Your task to perform on an android device: delete location history Image 0: 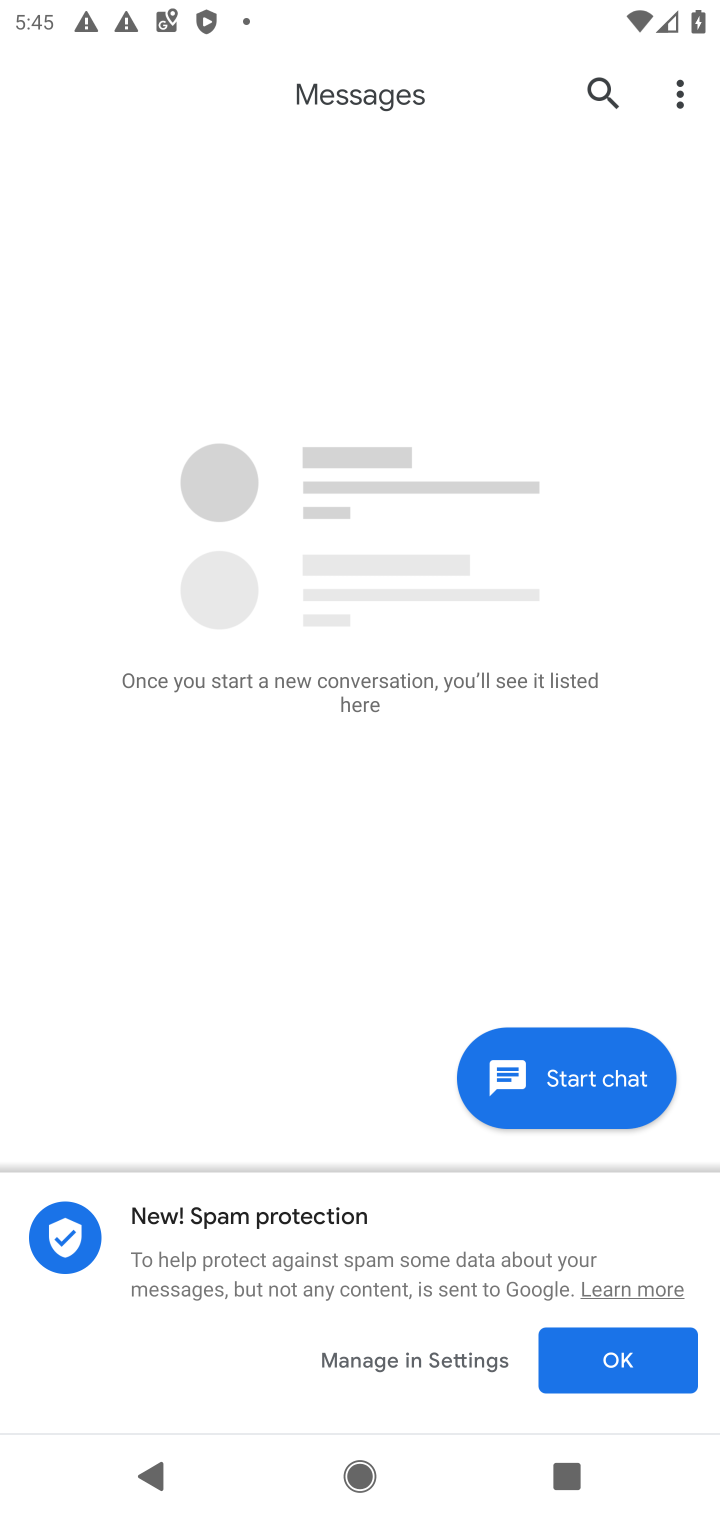
Step 0: press home button
Your task to perform on an android device: delete location history Image 1: 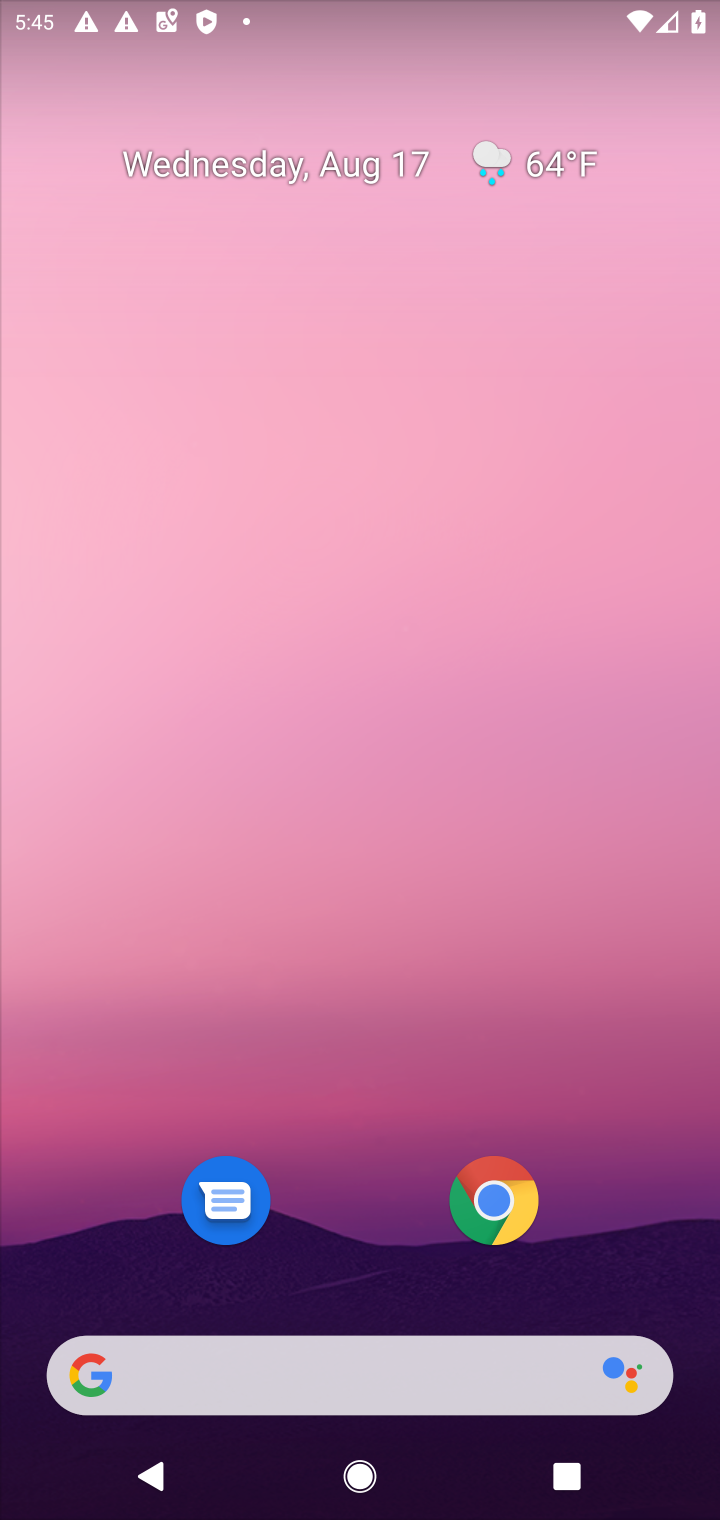
Step 1: drag from (381, 1281) to (354, 1)
Your task to perform on an android device: delete location history Image 2: 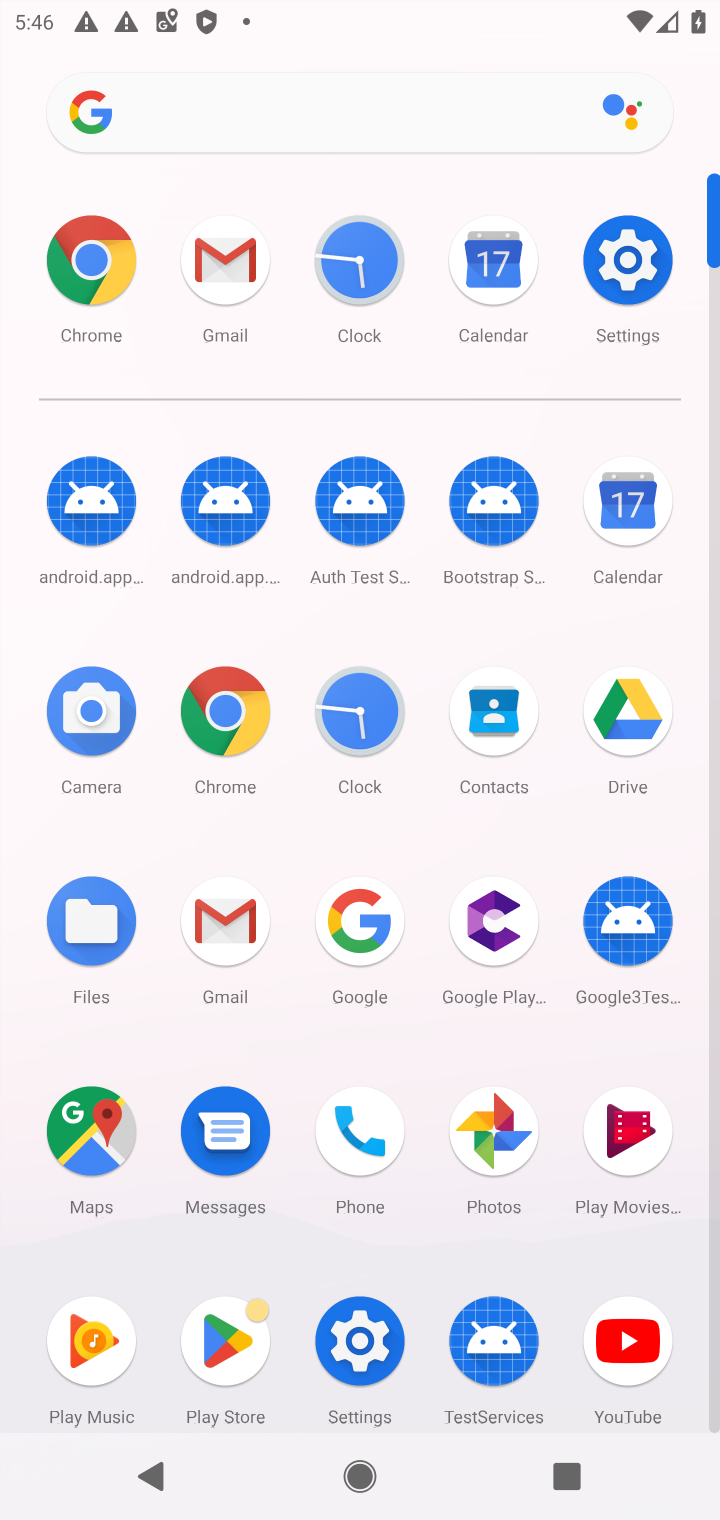
Step 2: click (87, 1129)
Your task to perform on an android device: delete location history Image 3: 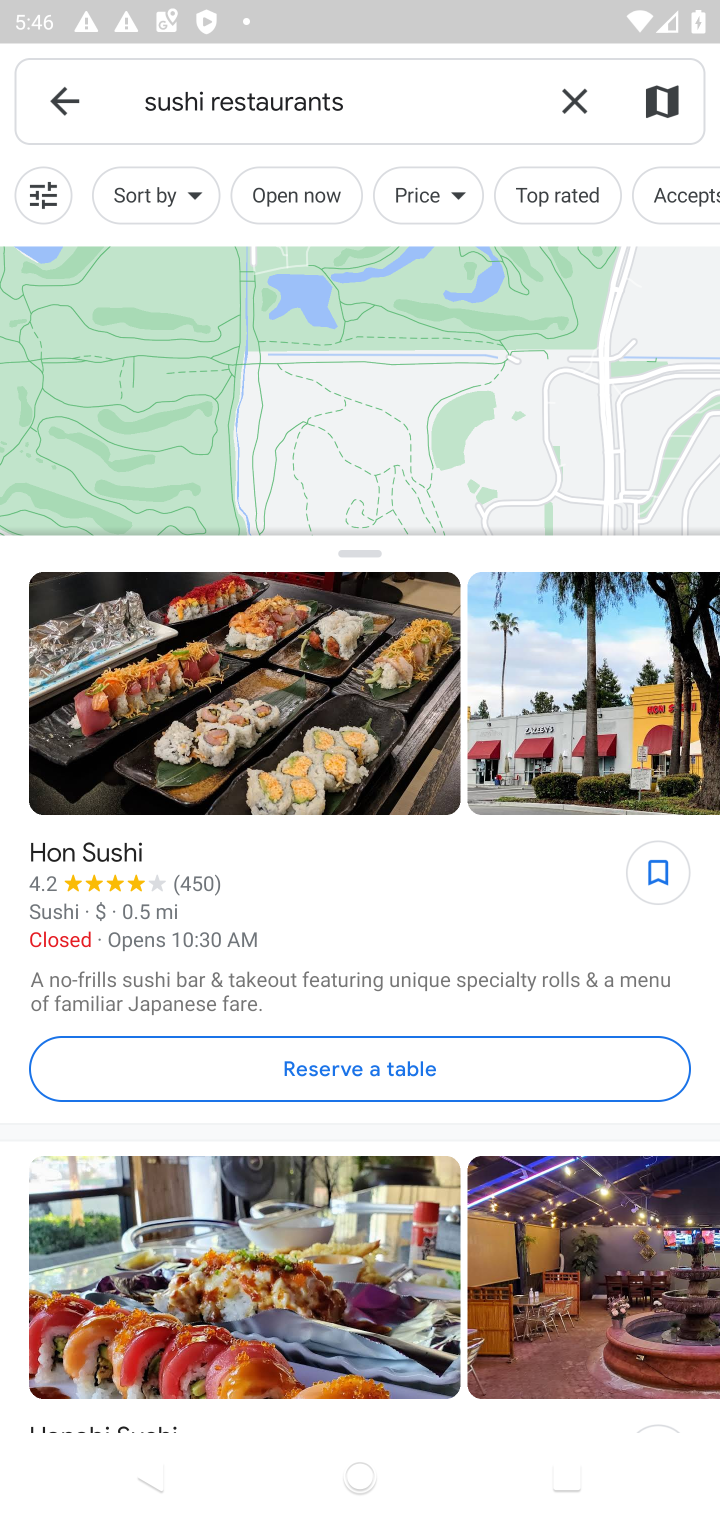
Step 3: click (64, 93)
Your task to perform on an android device: delete location history Image 4: 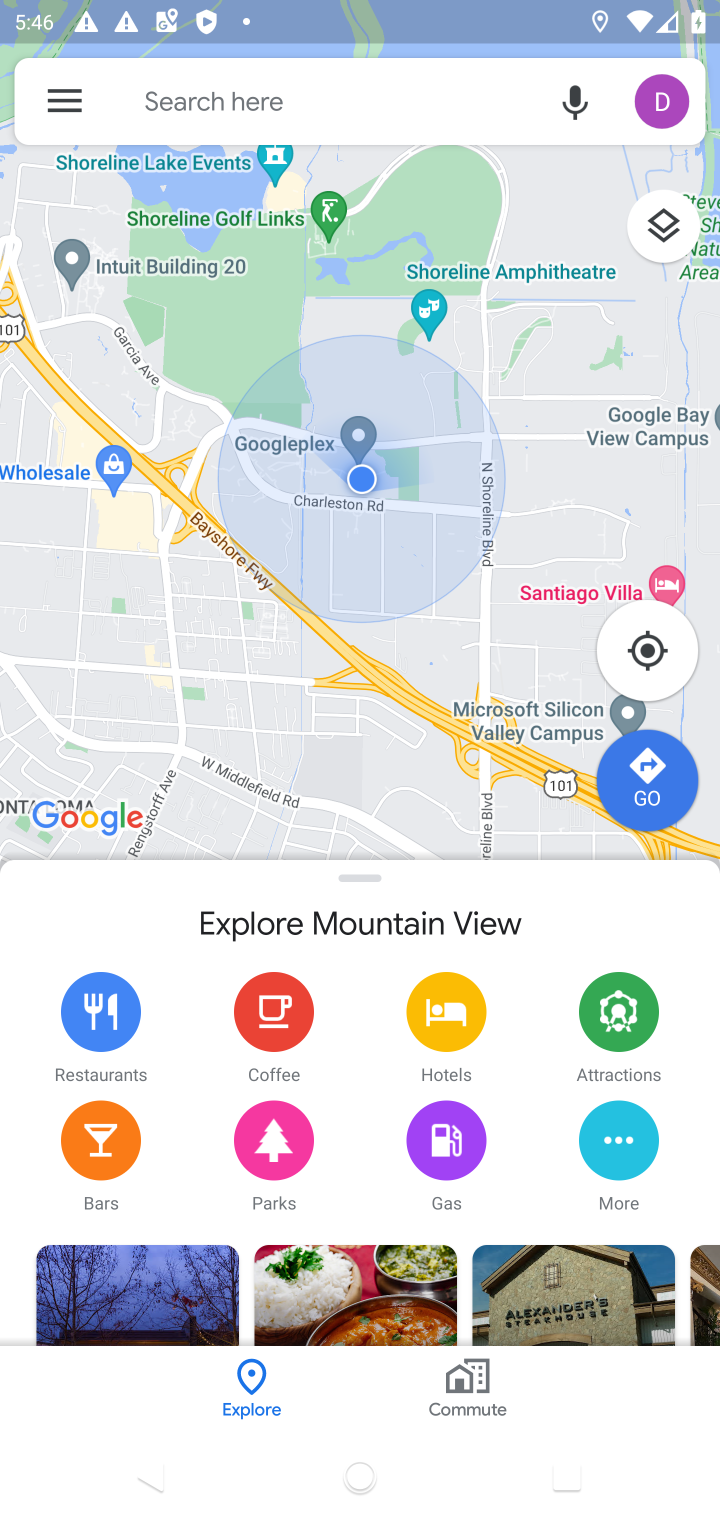
Step 4: click (57, 93)
Your task to perform on an android device: delete location history Image 5: 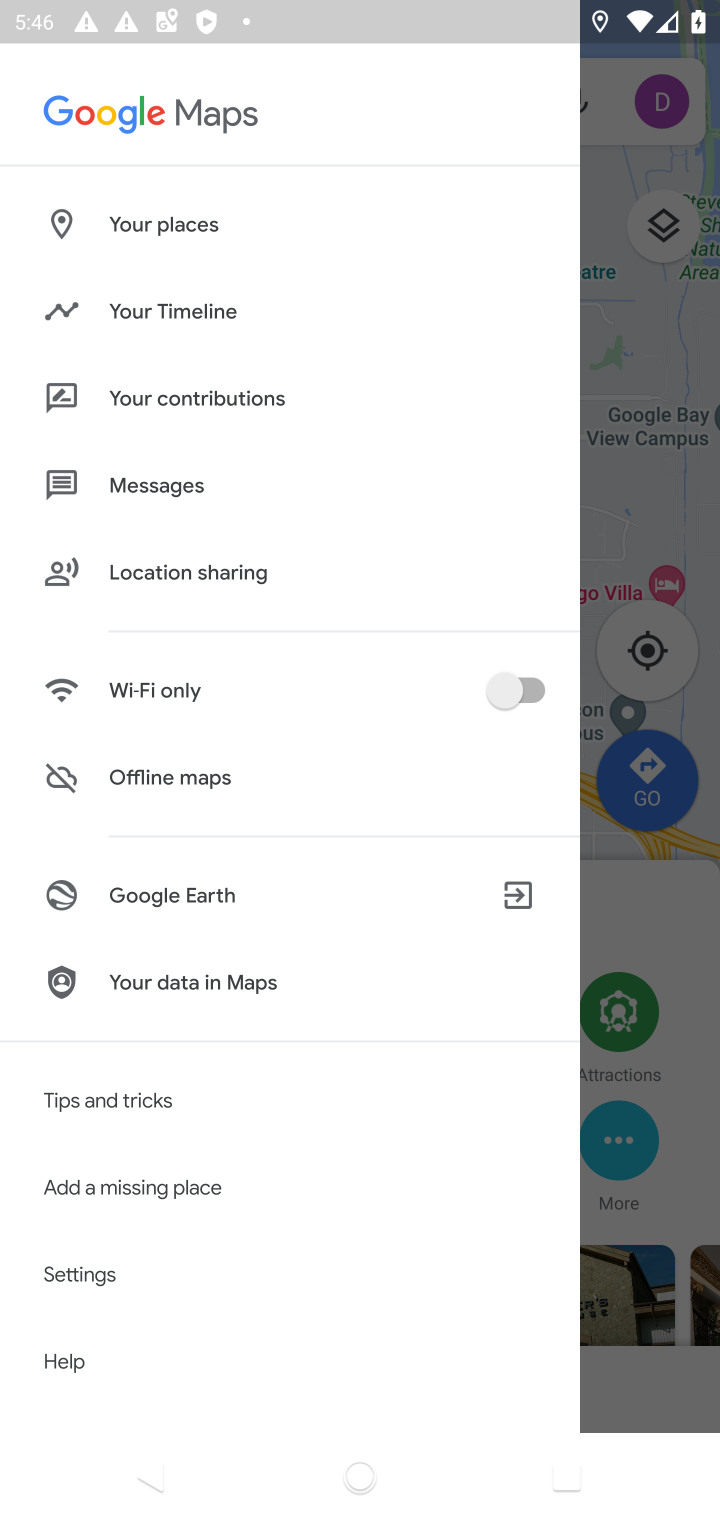
Step 5: drag from (129, 1210) to (137, 526)
Your task to perform on an android device: delete location history Image 6: 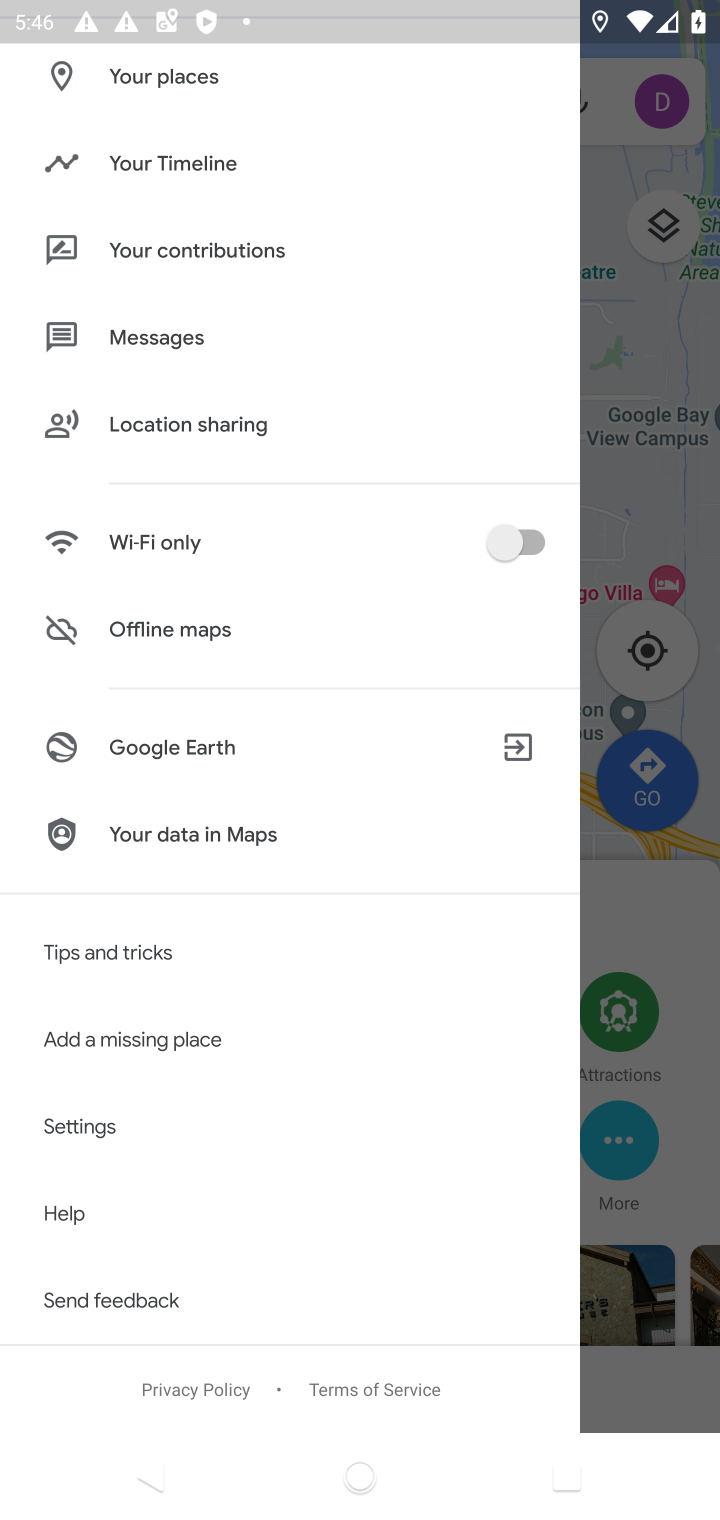
Step 6: drag from (263, 124) to (227, 1022)
Your task to perform on an android device: delete location history Image 7: 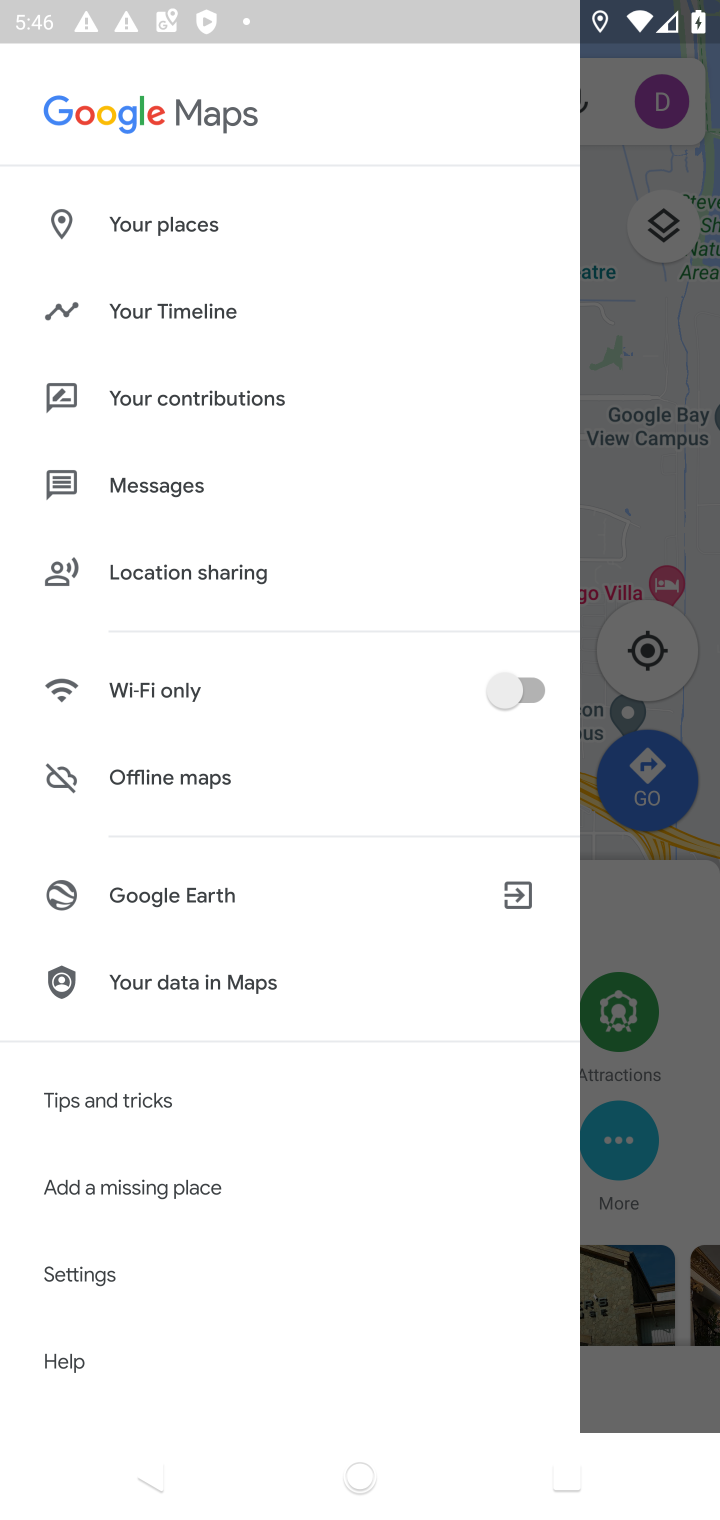
Step 7: click (172, 314)
Your task to perform on an android device: delete location history Image 8: 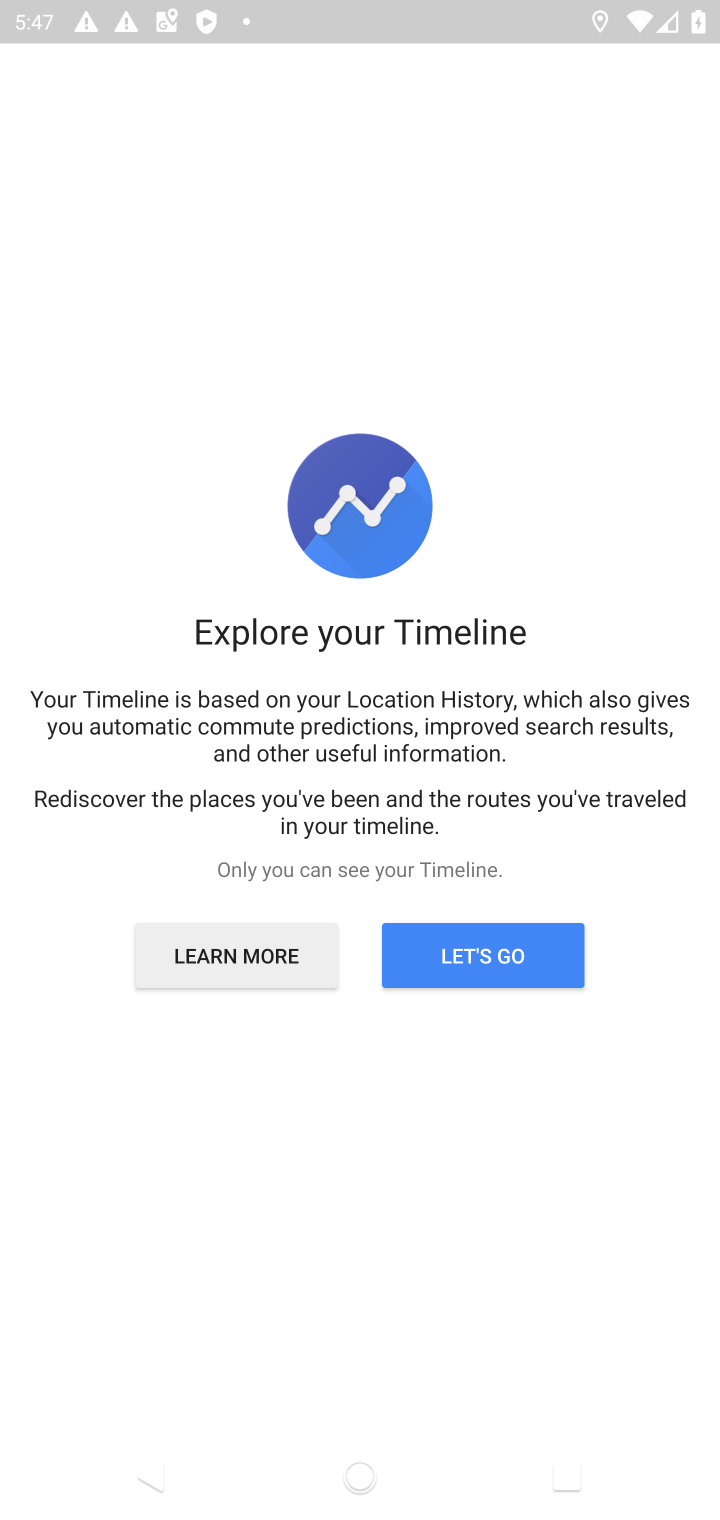
Step 8: click (446, 964)
Your task to perform on an android device: delete location history Image 9: 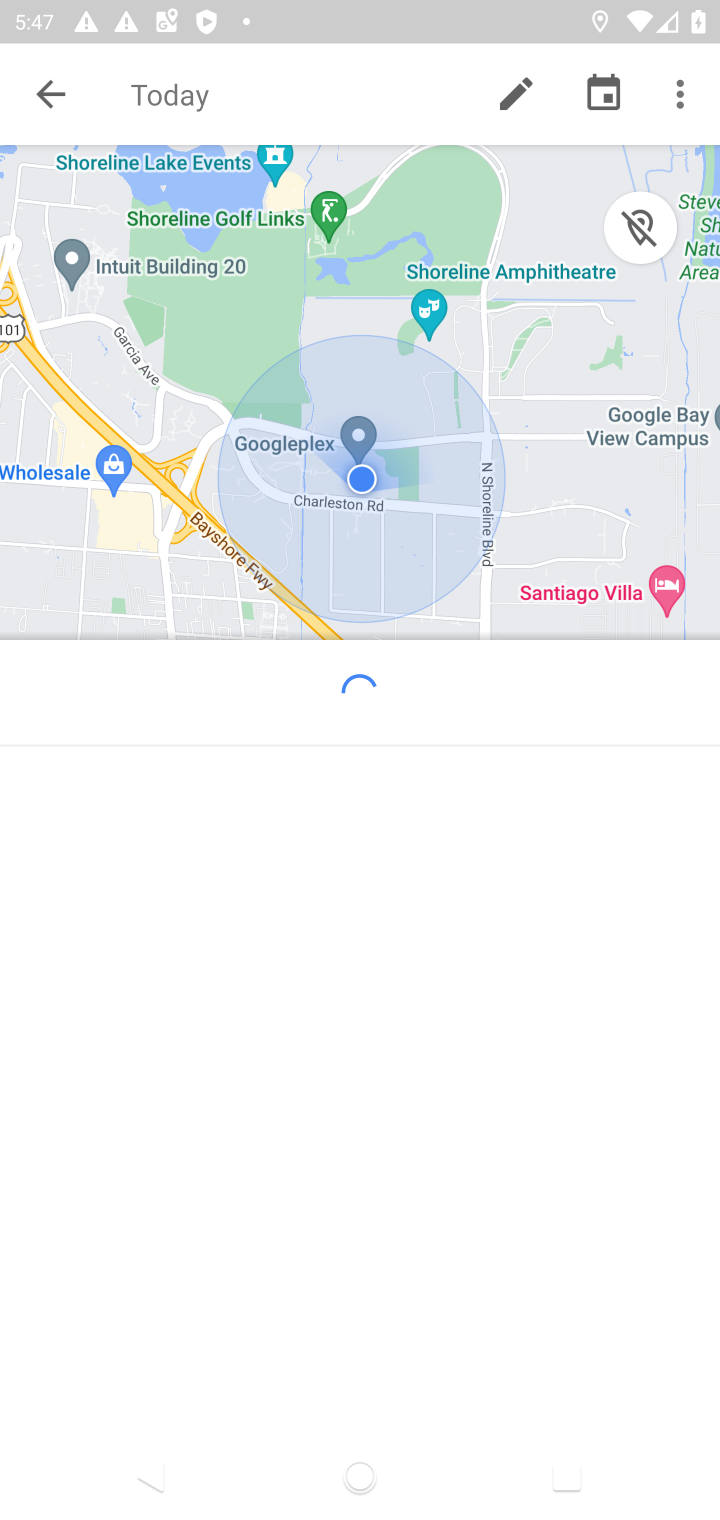
Step 9: click (685, 88)
Your task to perform on an android device: delete location history Image 10: 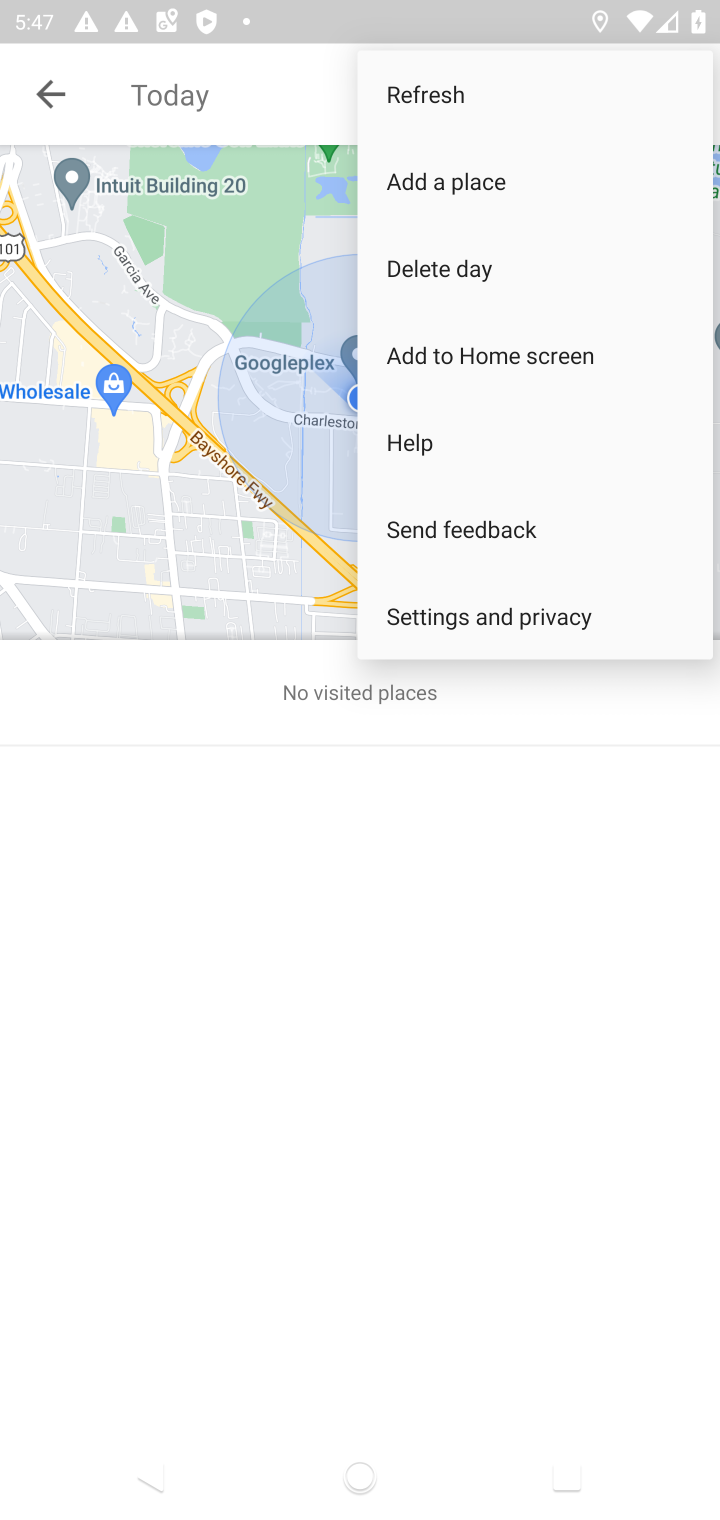
Step 10: click (438, 617)
Your task to perform on an android device: delete location history Image 11: 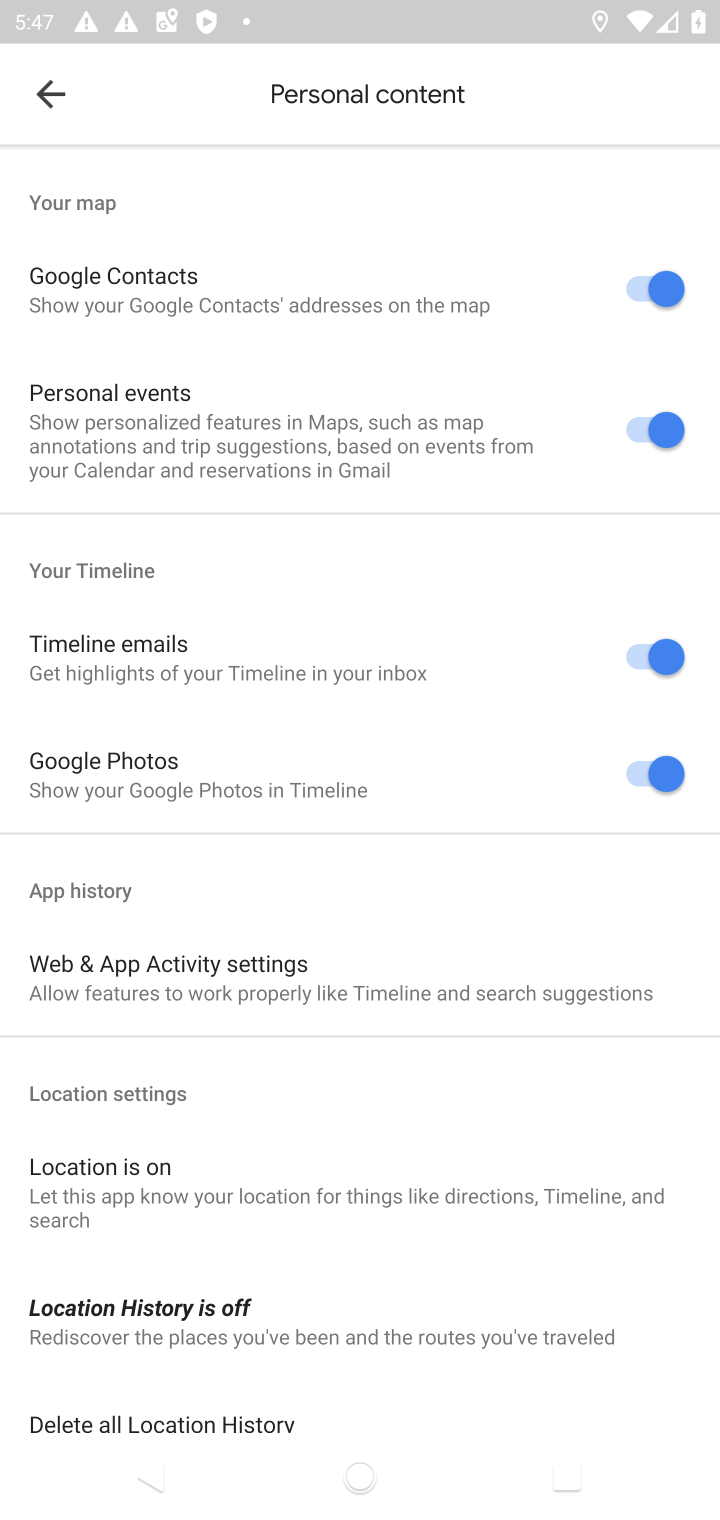
Step 11: drag from (181, 1262) to (136, 714)
Your task to perform on an android device: delete location history Image 12: 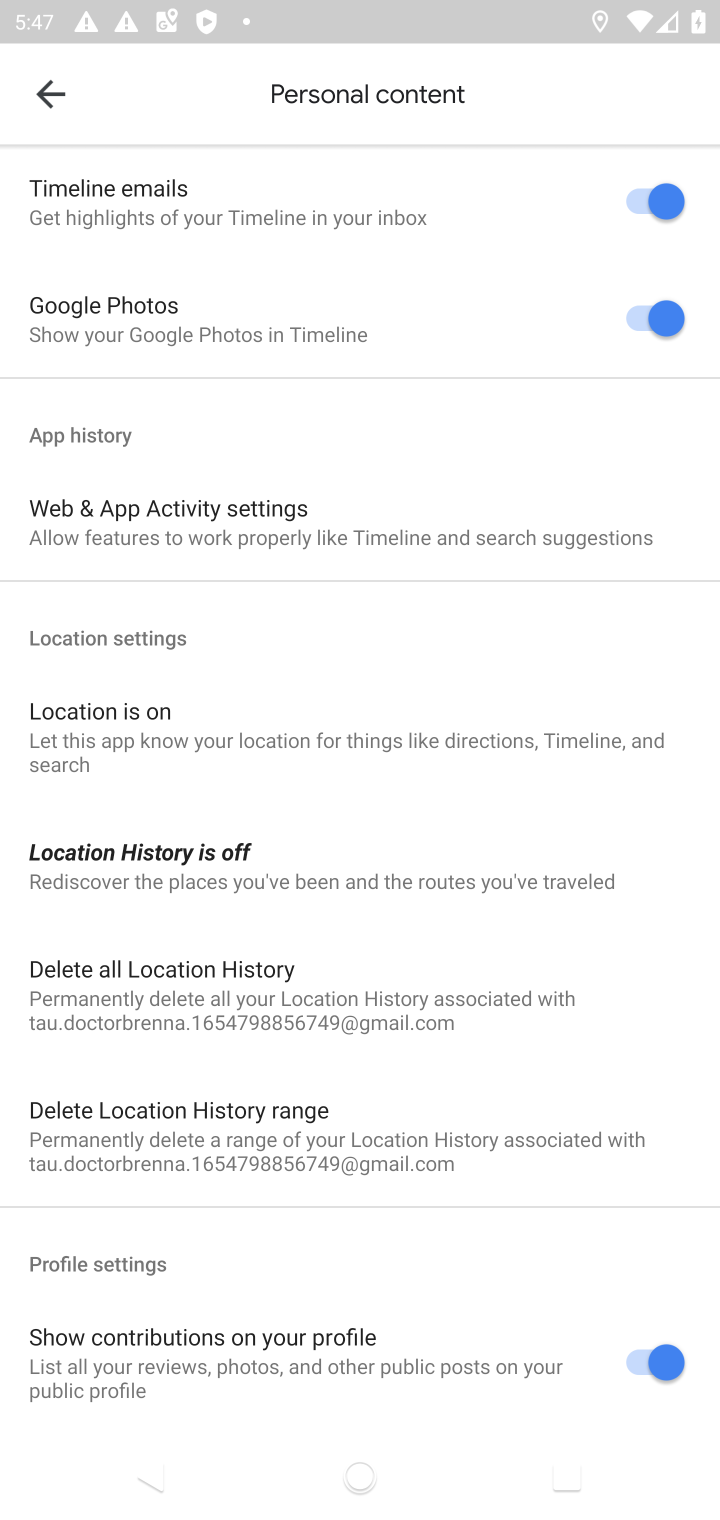
Step 12: click (176, 973)
Your task to perform on an android device: delete location history Image 13: 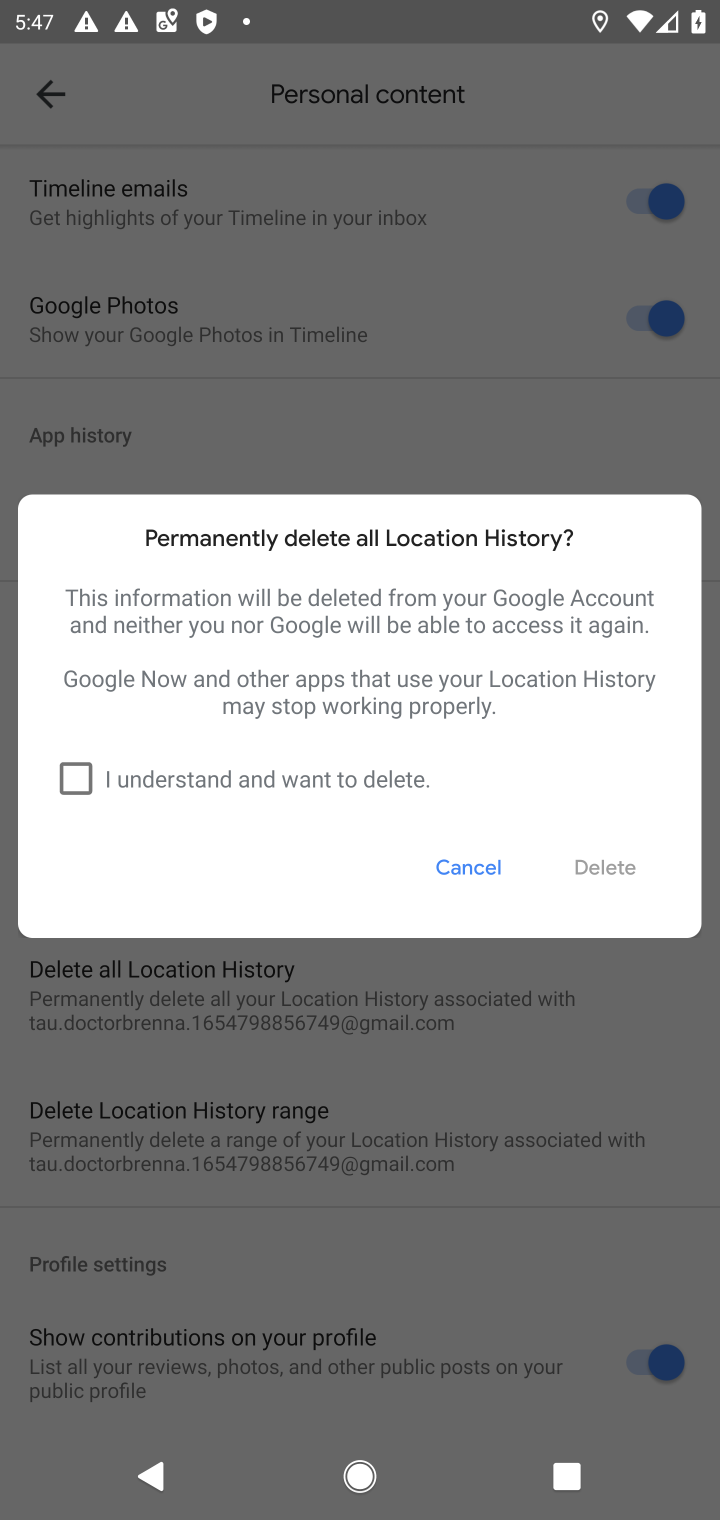
Step 13: click (66, 777)
Your task to perform on an android device: delete location history Image 14: 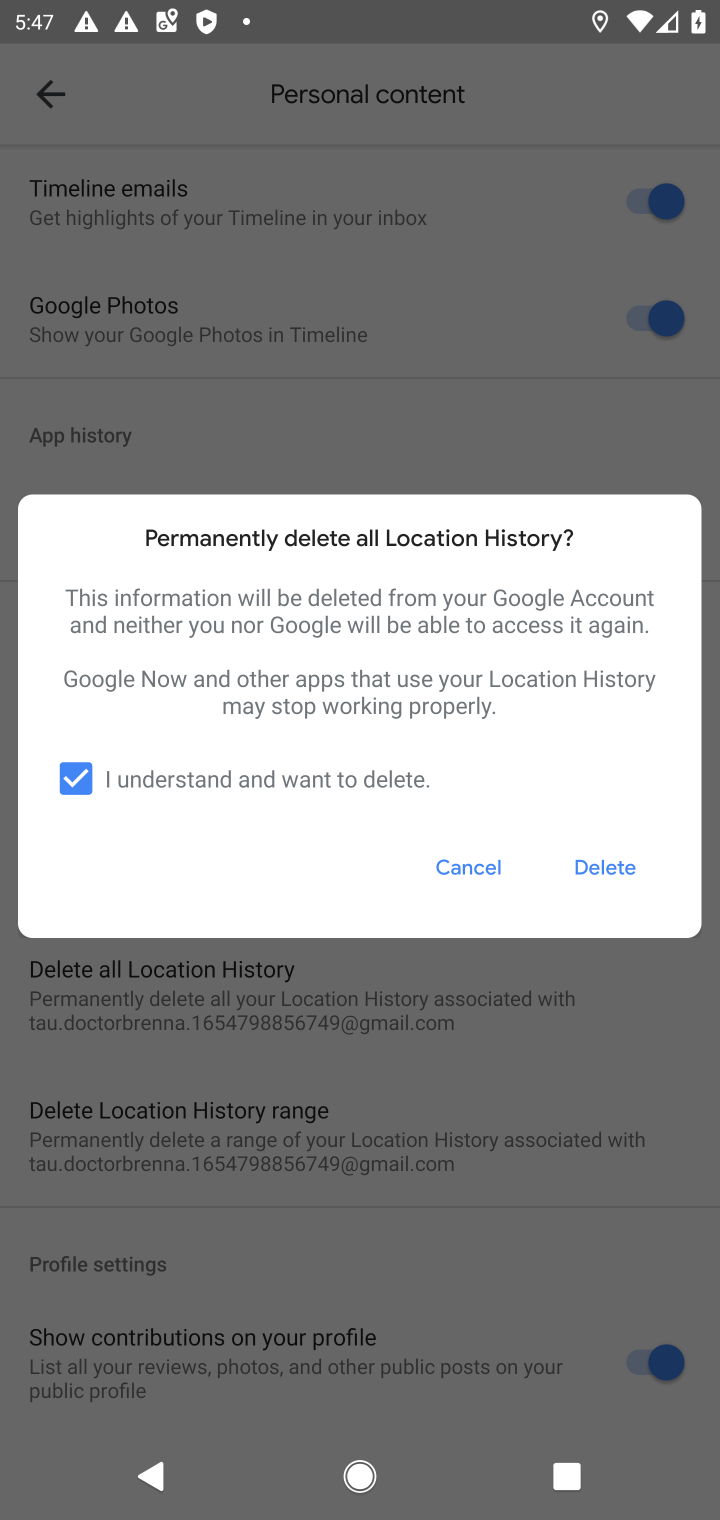
Step 14: click (597, 863)
Your task to perform on an android device: delete location history Image 15: 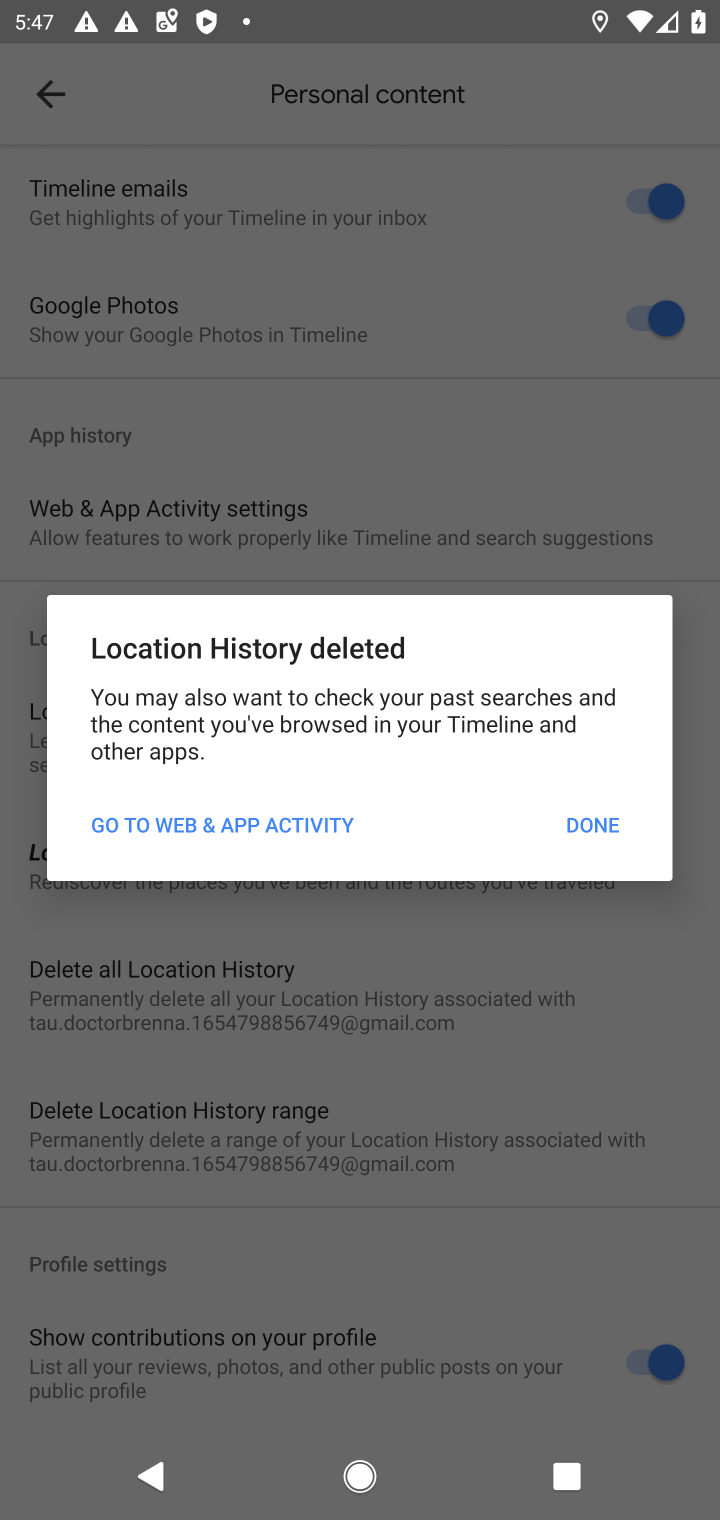
Step 15: click (601, 813)
Your task to perform on an android device: delete location history Image 16: 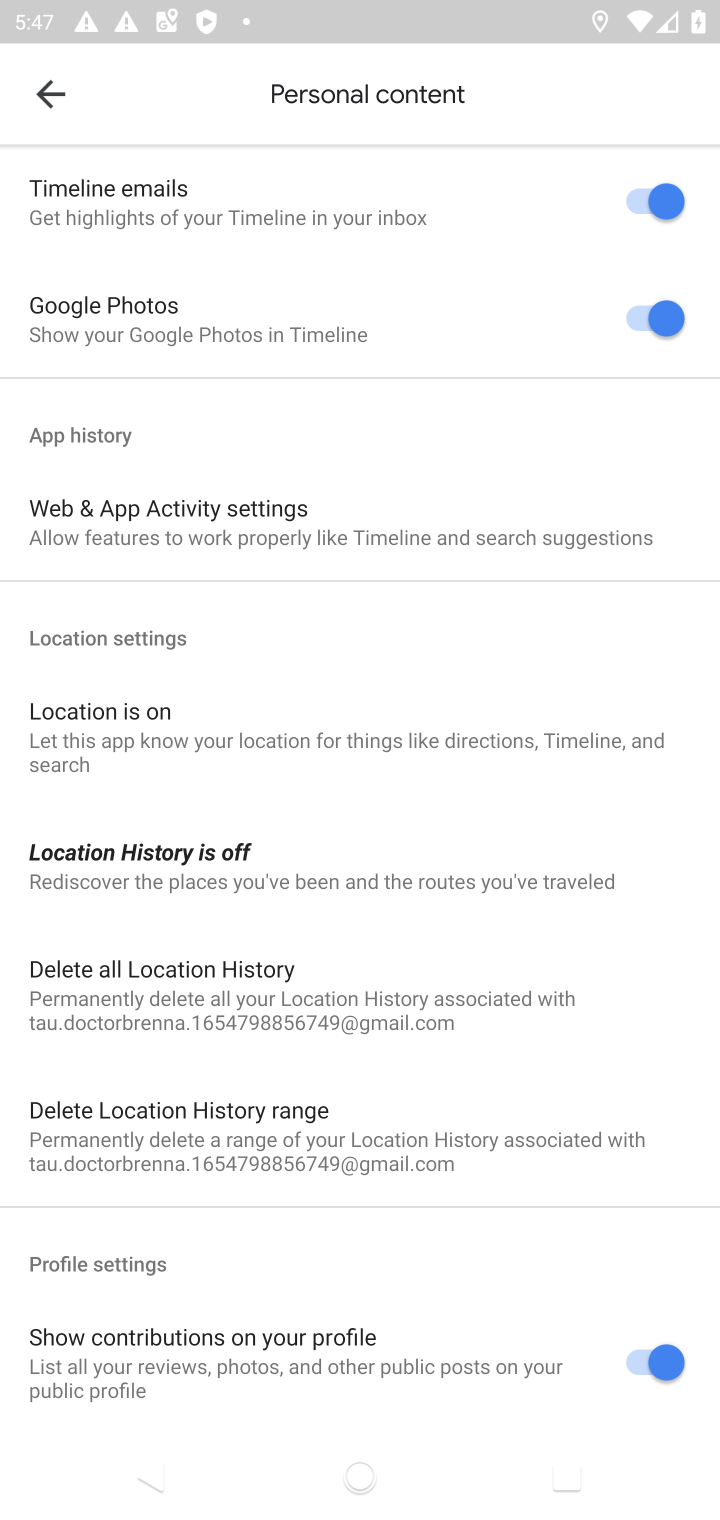
Step 16: task complete